Your task to perform on an android device: Check the news Image 0: 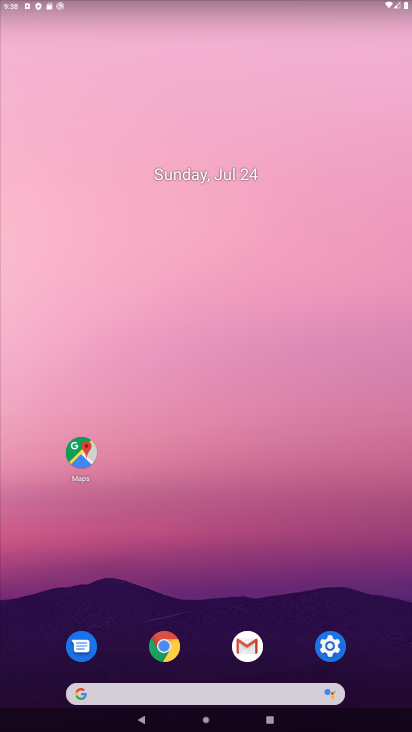
Step 0: click (194, 702)
Your task to perform on an android device: Check the news Image 1: 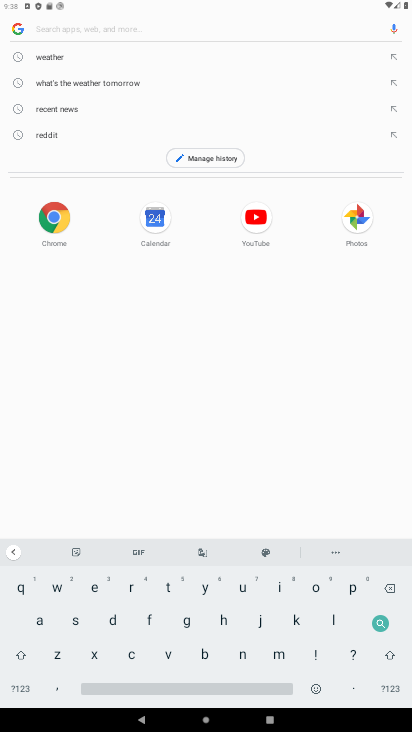
Step 1: click (231, 651)
Your task to perform on an android device: Check the news Image 2: 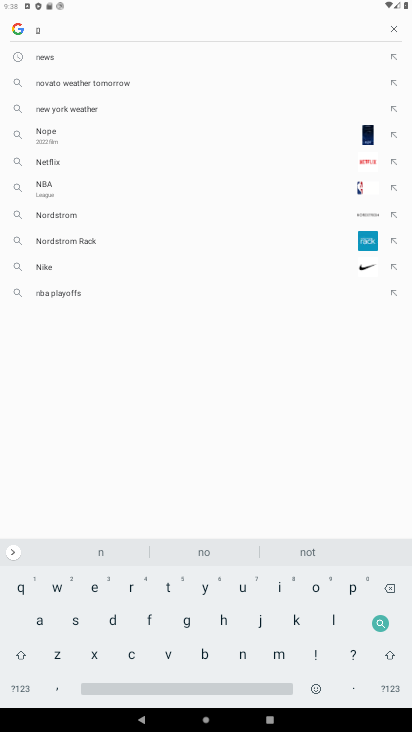
Step 2: click (97, 586)
Your task to perform on an android device: Check the news Image 3: 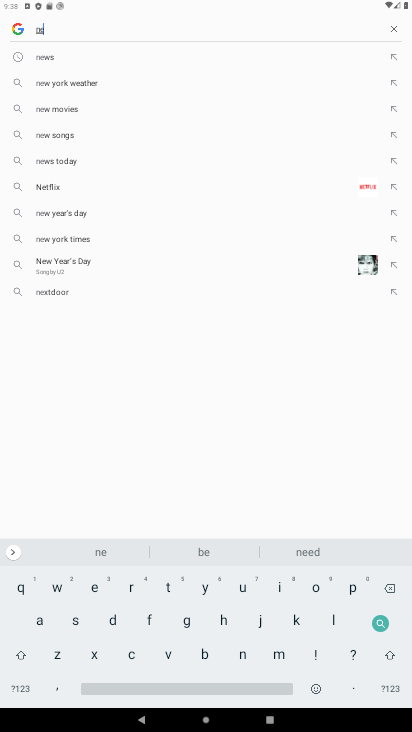
Step 3: click (63, 56)
Your task to perform on an android device: Check the news Image 4: 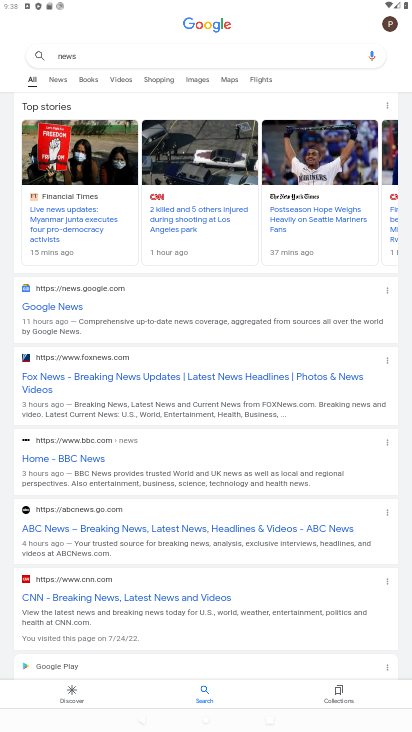
Step 4: task complete